Your task to perform on an android device: turn on translation in the chrome app Image 0: 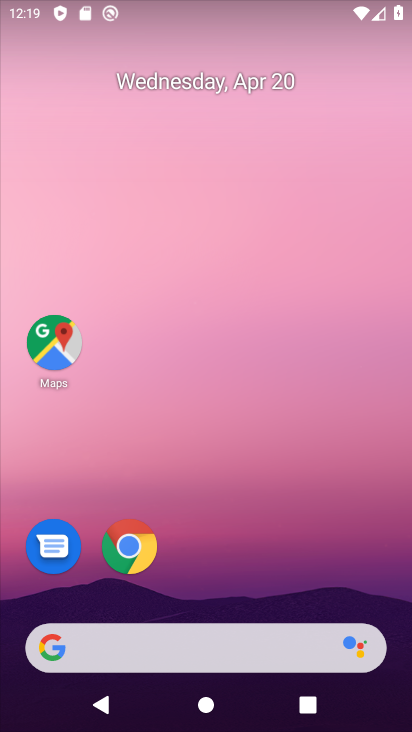
Step 0: click (133, 545)
Your task to perform on an android device: turn on translation in the chrome app Image 1: 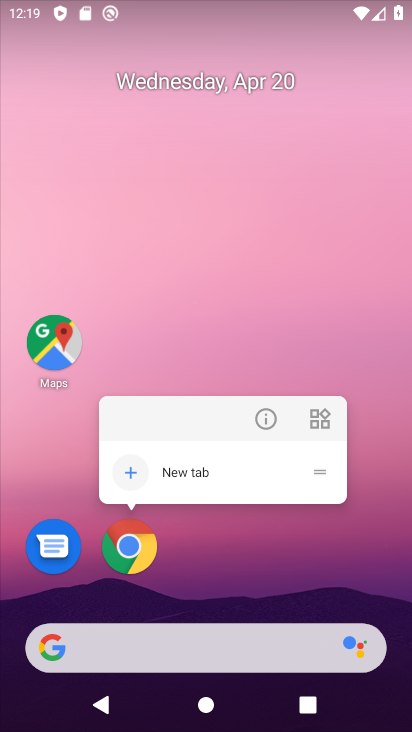
Step 1: click (132, 535)
Your task to perform on an android device: turn on translation in the chrome app Image 2: 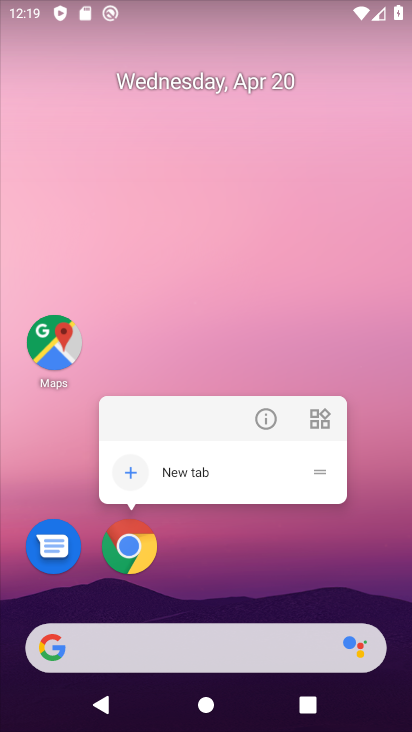
Step 2: click (135, 542)
Your task to perform on an android device: turn on translation in the chrome app Image 3: 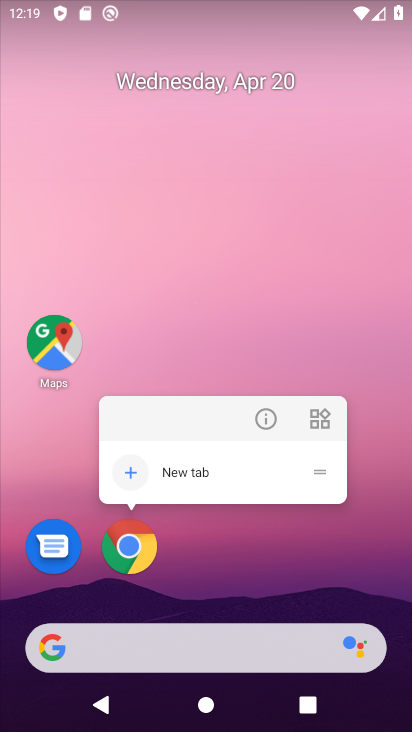
Step 3: click (128, 540)
Your task to perform on an android device: turn on translation in the chrome app Image 4: 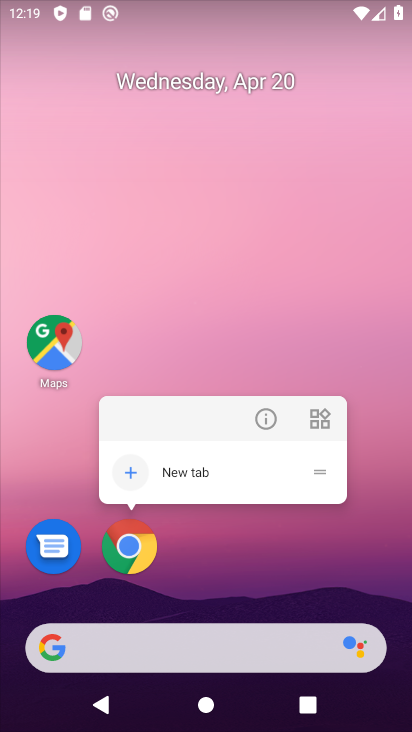
Step 4: click (127, 539)
Your task to perform on an android device: turn on translation in the chrome app Image 5: 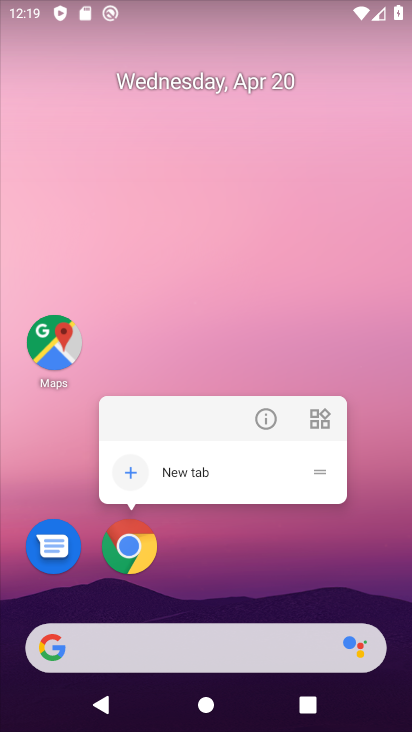
Step 5: click (130, 546)
Your task to perform on an android device: turn on translation in the chrome app Image 6: 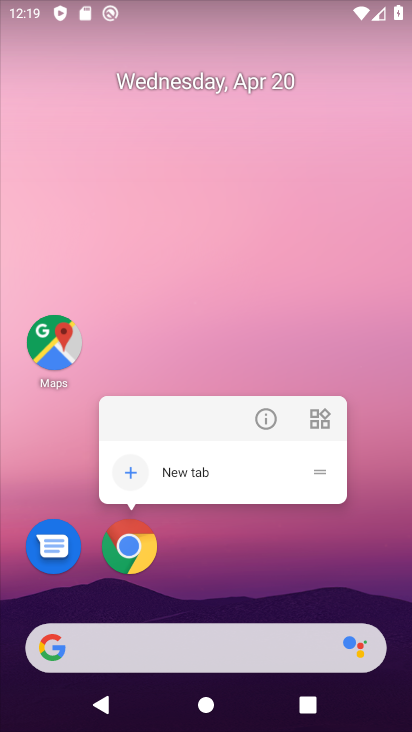
Step 6: click (130, 546)
Your task to perform on an android device: turn on translation in the chrome app Image 7: 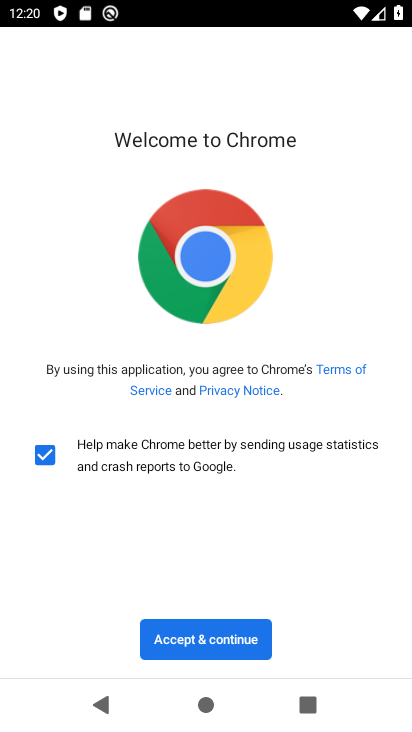
Step 7: click (198, 642)
Your task to perform on an android device: turn on translation in the chrome app Image 8: 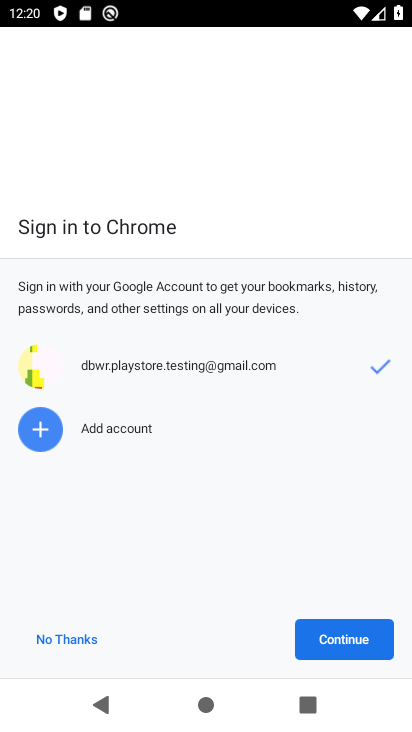
Step 8: click (335, 637)
Your task to perform on an android device: turn on translation in the chrome app Image 9: 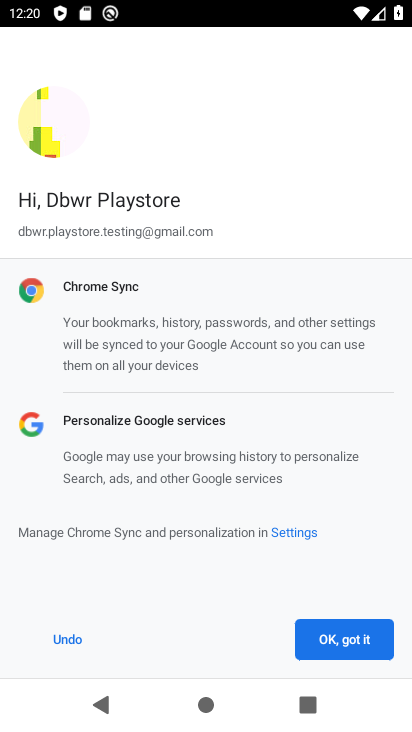
Step 9: click (340, 631)
Your task to perform on an android device: turn on translation in the chrome app Image 10: 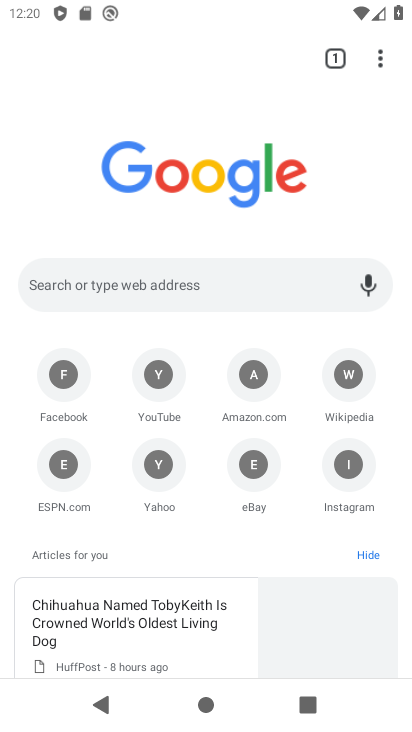
Step 10: drag from (382, 60) to (202, 485)
Your task to perform on an android device: turn on translation in the chrome app Image 11: 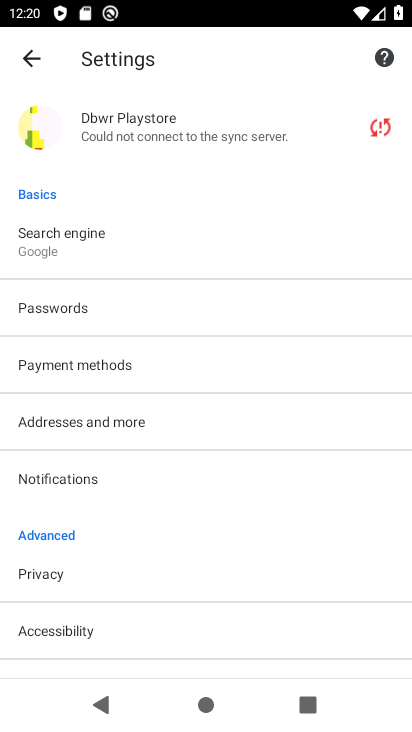
Step 11: drag from (148, 637) to (240, 163)
Your task to perform on an android device: turn on translation in the chrome app Image 12: 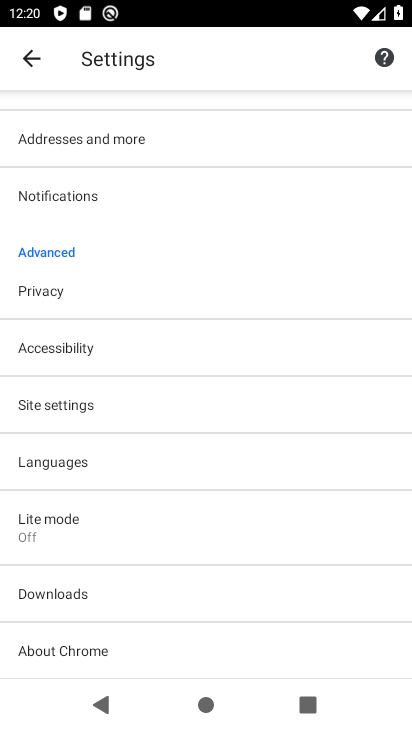
Step 12: click (75, 460)
Your task to perform on an android device: turn on translation in the chrome app Image 13: 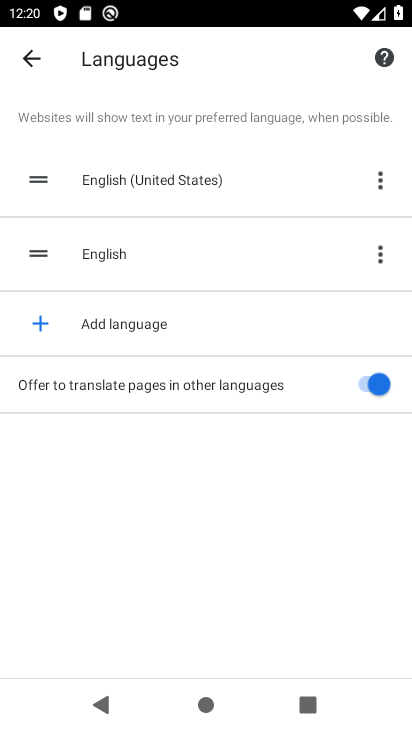
Step 13: task complete